Your task to perform on an android device: toggle sleep mode Image 0: 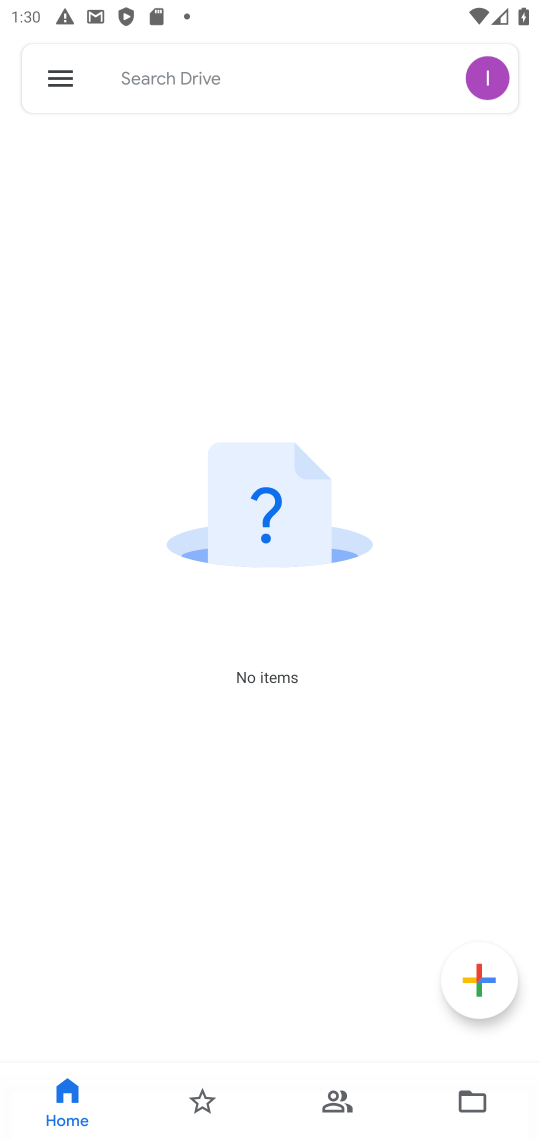
Step 0: press home button
Your task to perform on an android device: toggle sleep mode Image 1: 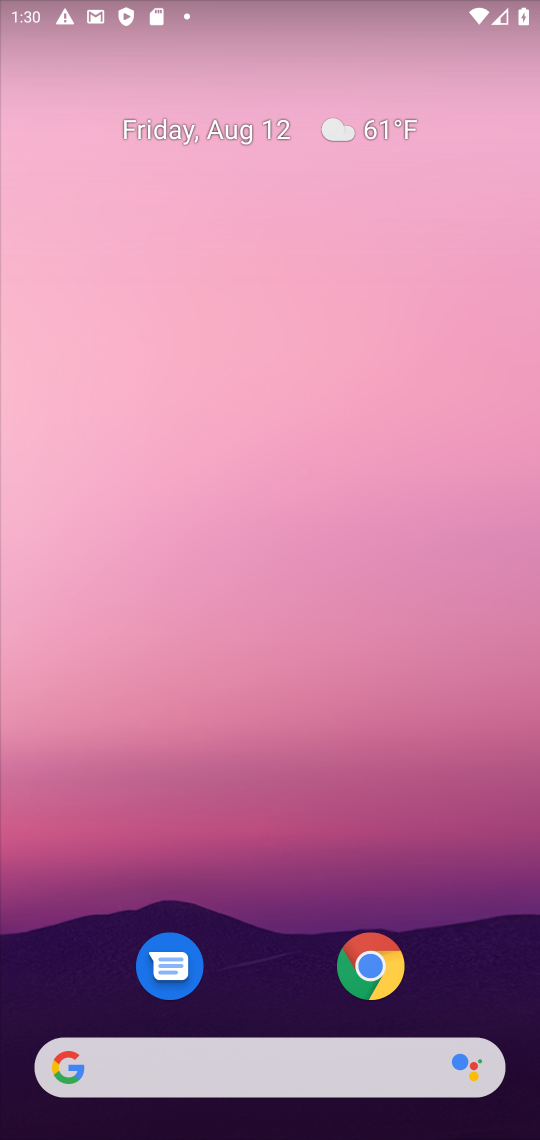
Step 1: drag from (259, 819) to (417, 11)
Your task to perform on an android device: toggle sleep mode Image 2: 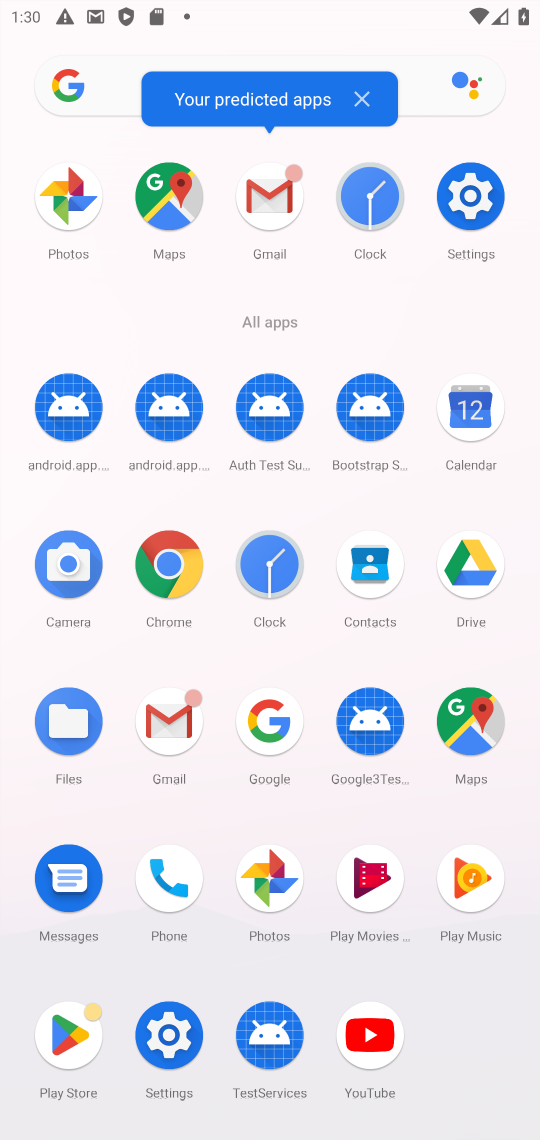
Step 2: click (469, 191)
Your task to perform on an android device: toggle sleep mode Image 3: 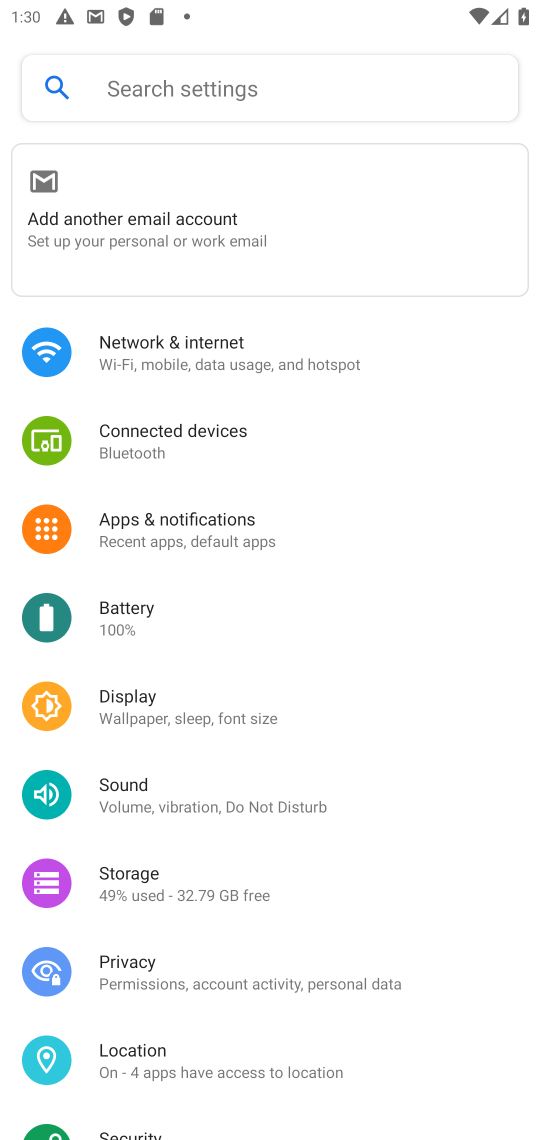
Step 3: click (127, 685)
Your task to perform on an android device: toggle sleep mode Image 4: 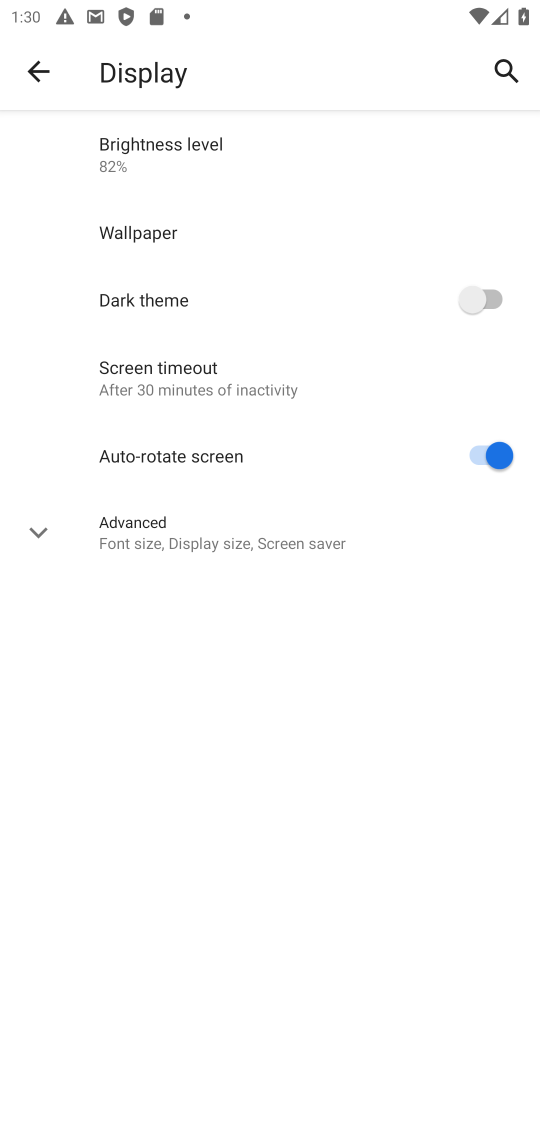
Step 4: click (183, 378)
Your task to perform on an android device: toggle sleep mode Image 5: 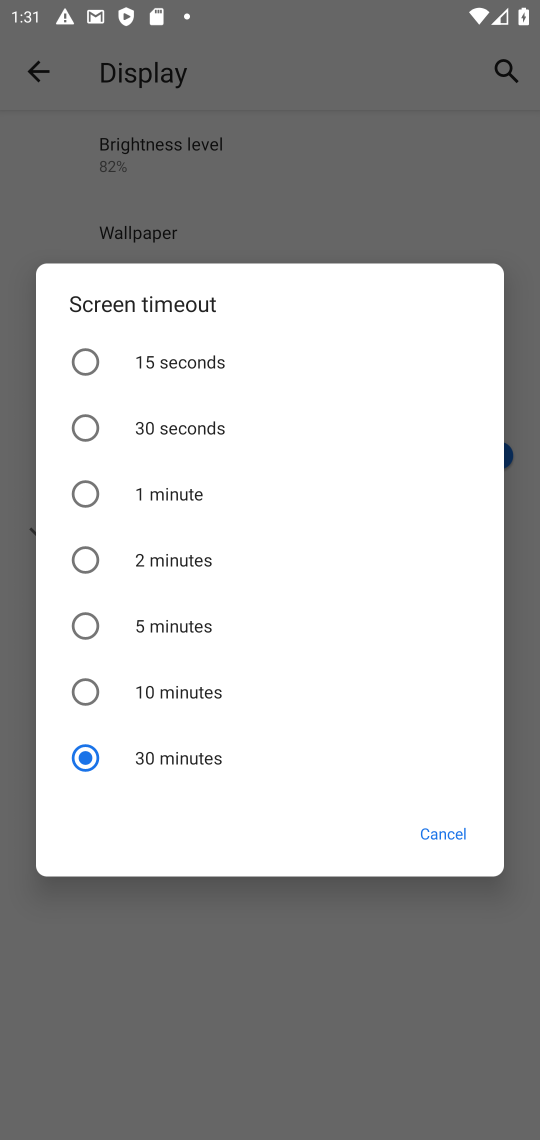
Step 5: click (180, 701)
Your task to perform on an android device: toggle sleep mode Image 6: 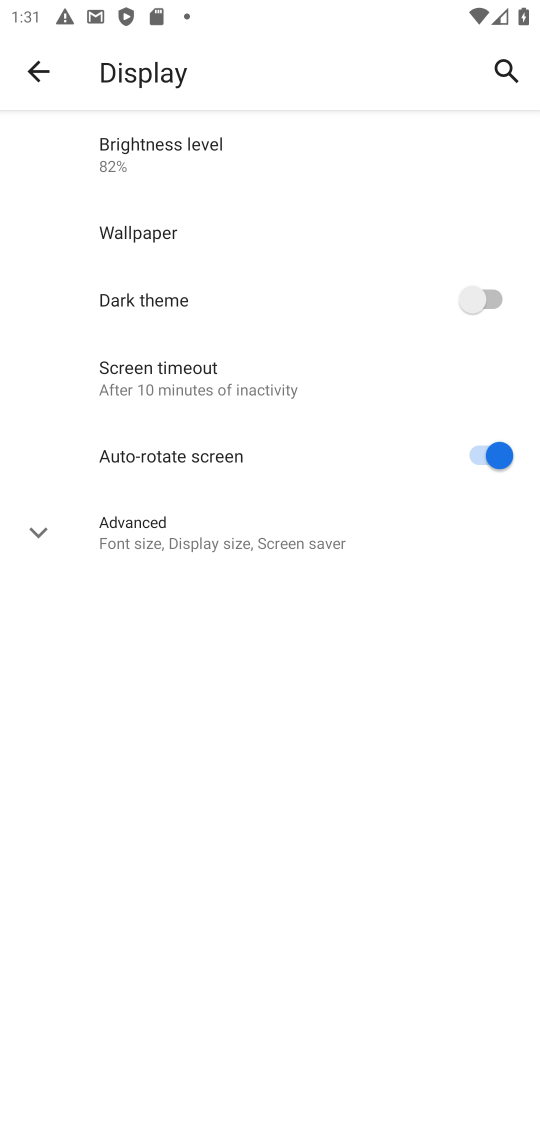
Step 6: task complete